Your task to perform on an android device: turn pop-ups on in chrome Image 0: 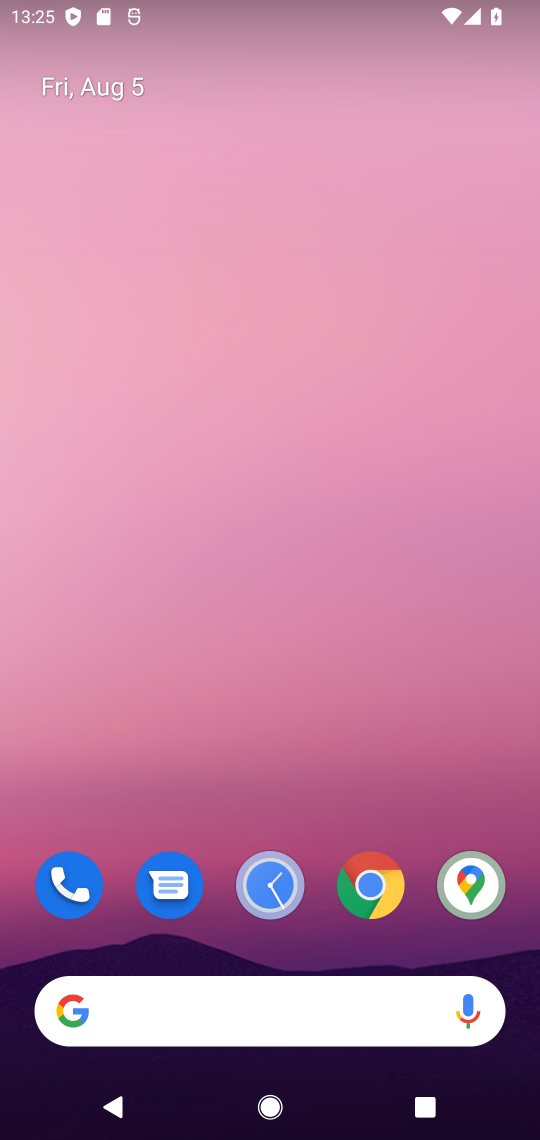
Step 0: click (378, 897)
Your task to perform on an android device: turn pop-ups on in chrome Image 1: 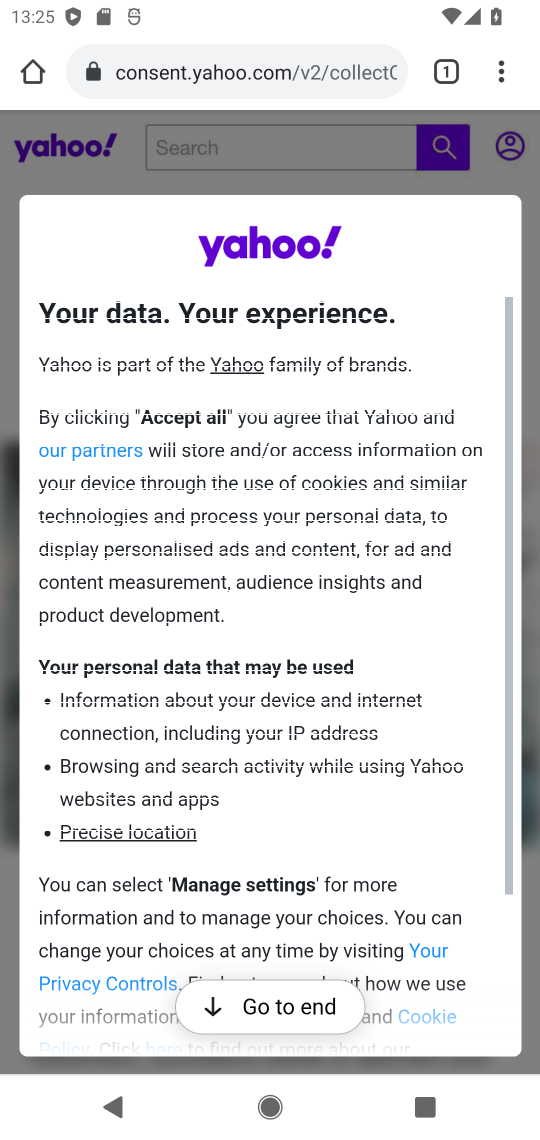
Step 1: click (501, 76)
Your task to perform on an android device: turn pop-ups on in chrome Image 2: 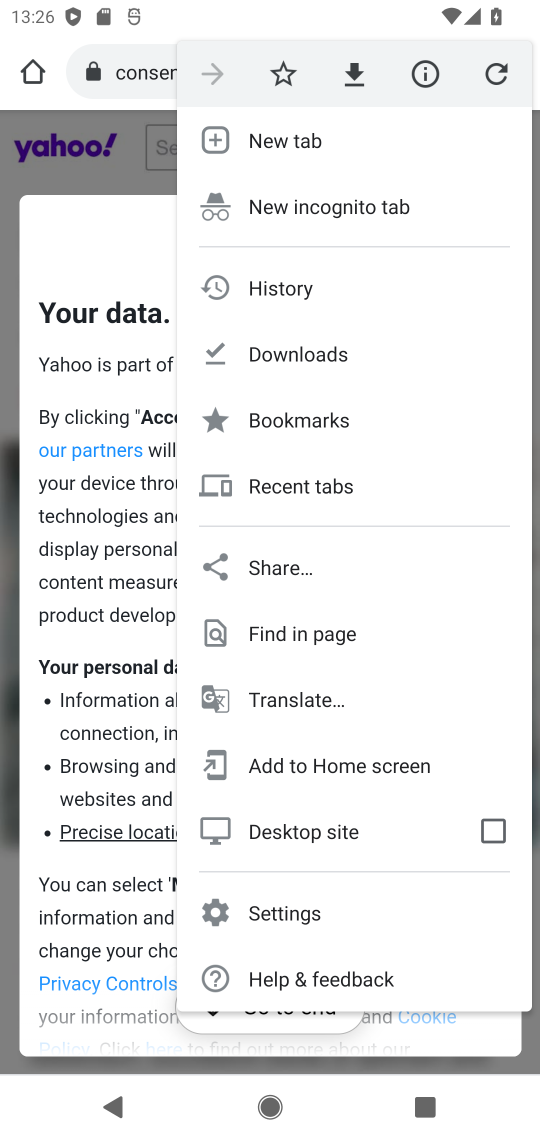
Step 2: click (274, 911)
Your task to perform on an android device: turn pop-ups on in chrome Image 3: 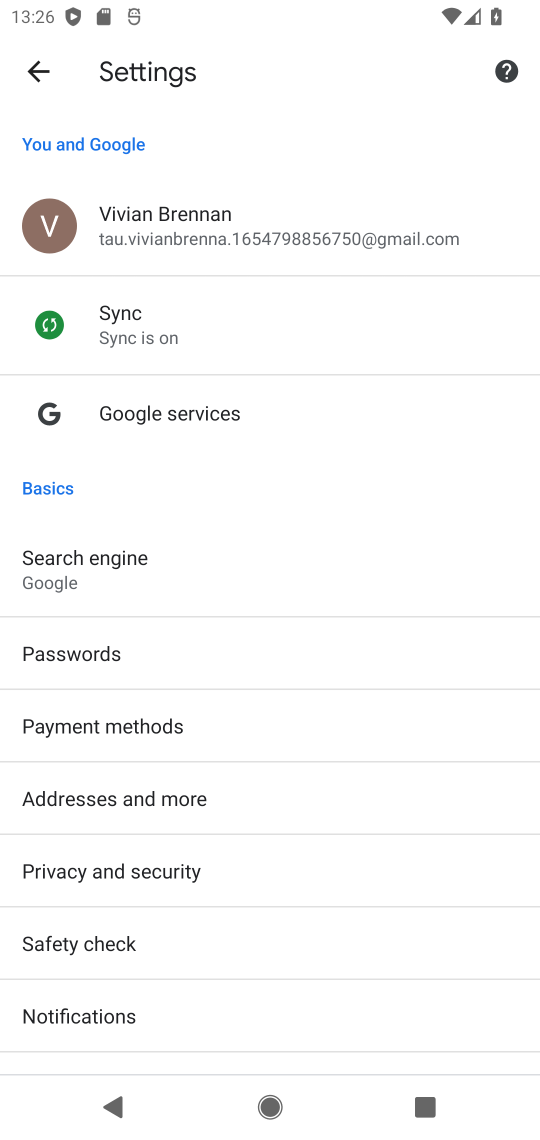
Step 3: drag from (164, 900) to (174, 453)
Your task to perform on an android device: turn pop-ups on in chrome Image 4: 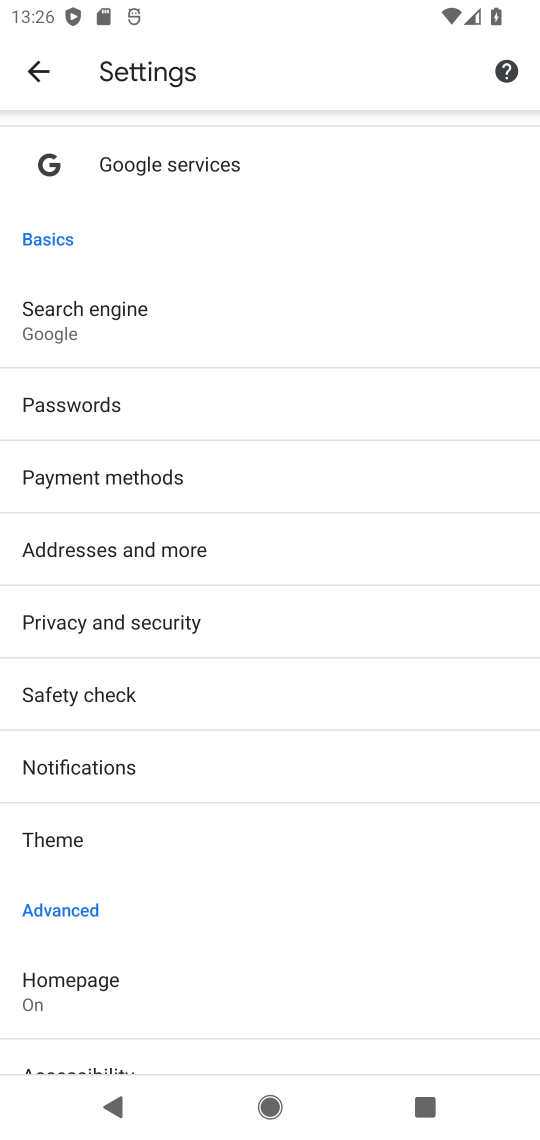
Step 4: press home button
Your task to perform on an android device: turn pop-ups on in chrome Image 5: 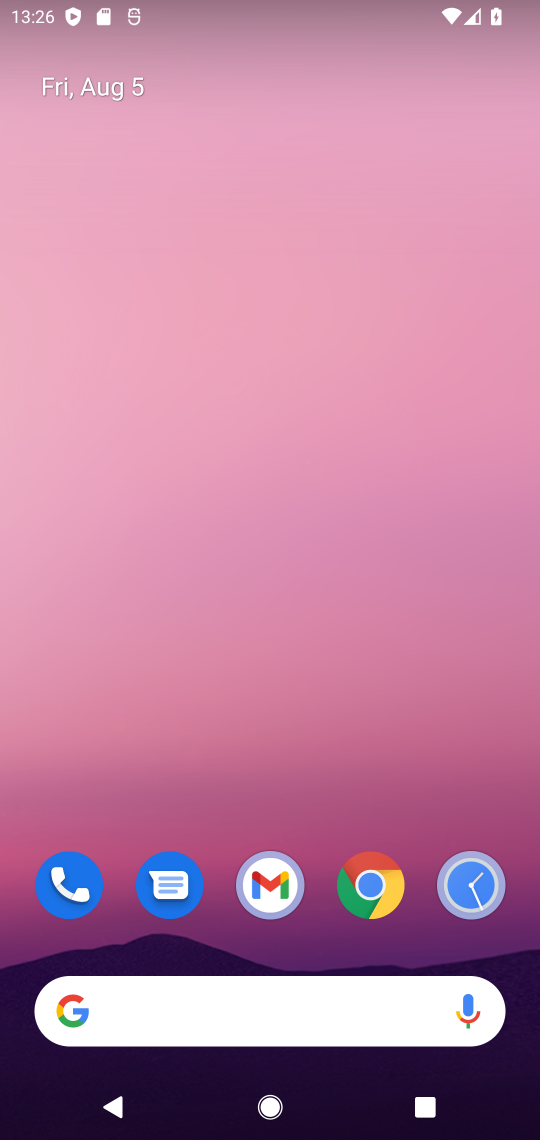
Step 5: click (373, 910)
Your task to perform on an android device: turn pop-ups on in chrome Image 6: 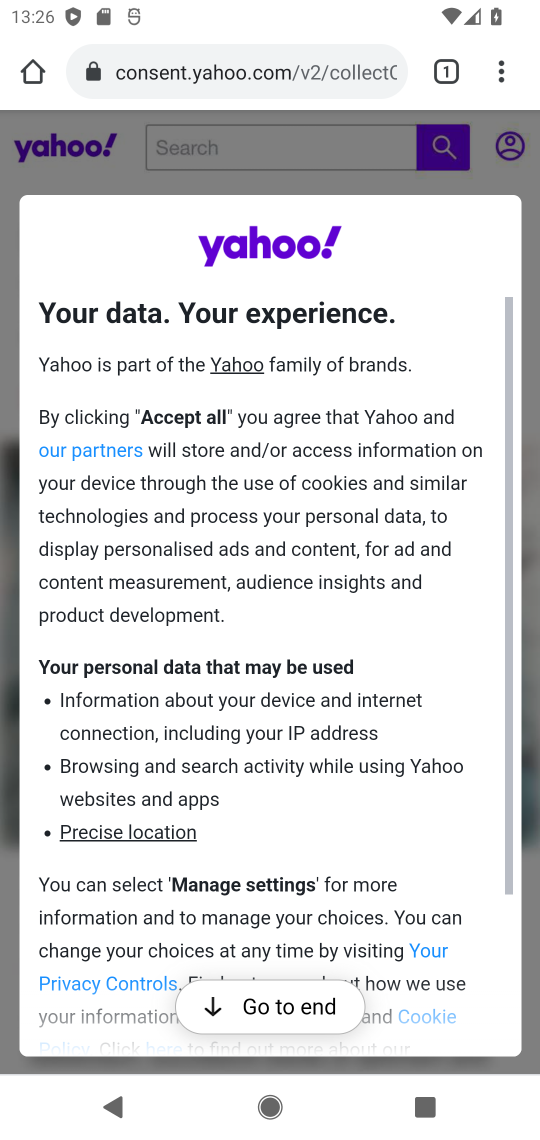
Step 6: click (496, 57)
Your task to perform on an android device: turn pop-ups on in chrome Image 7: 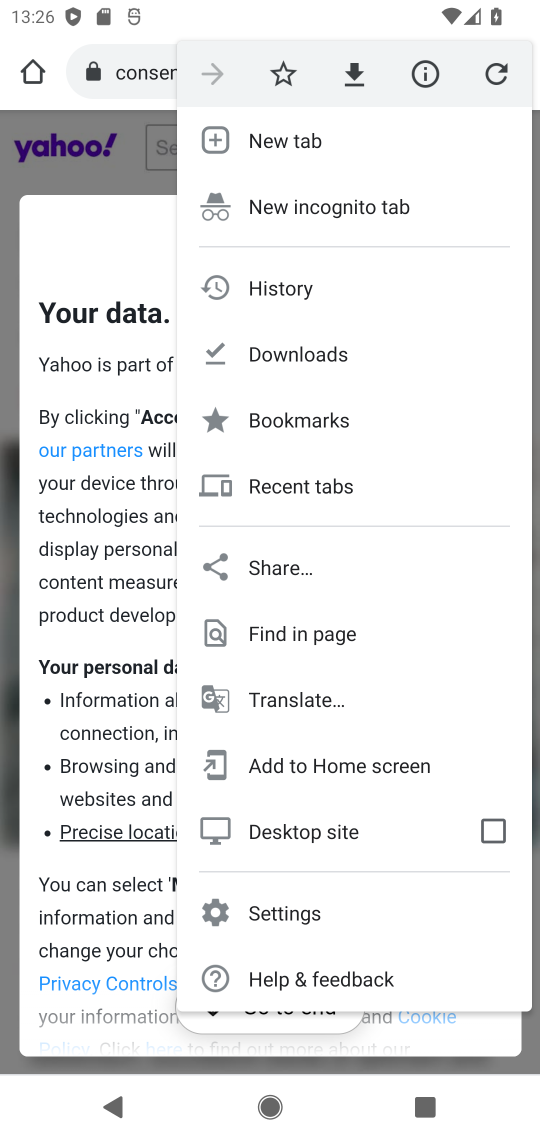
Step 7: click (300, 915)
Your task to perform on an android device: turn pop-ups on in chrome Image 8: 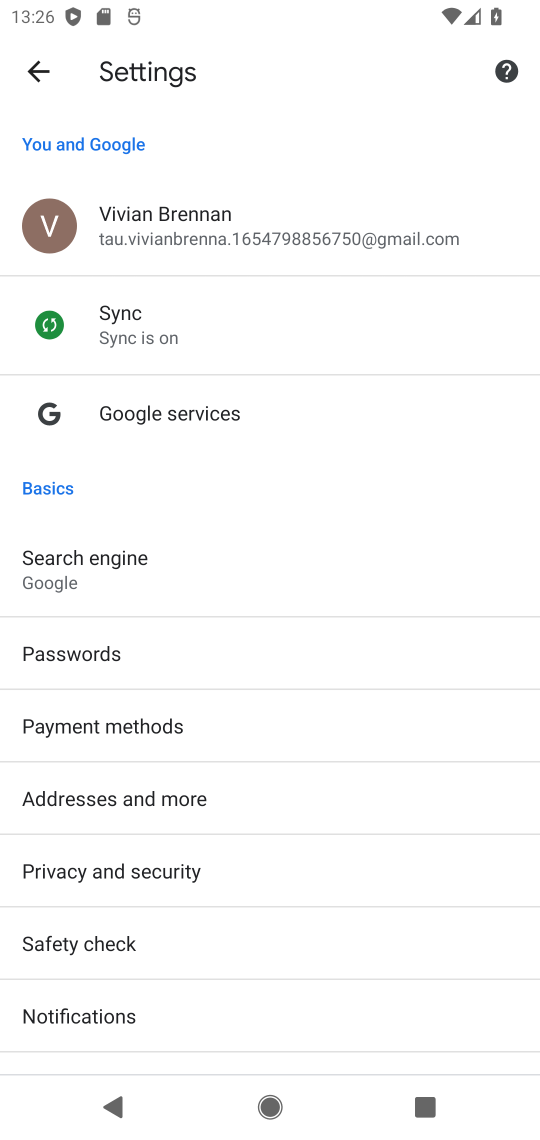
Step 8: drag from (173, 856) to (173, 328)
Your task to perform on an android device: turn pop-ups on in chrome Image 9: 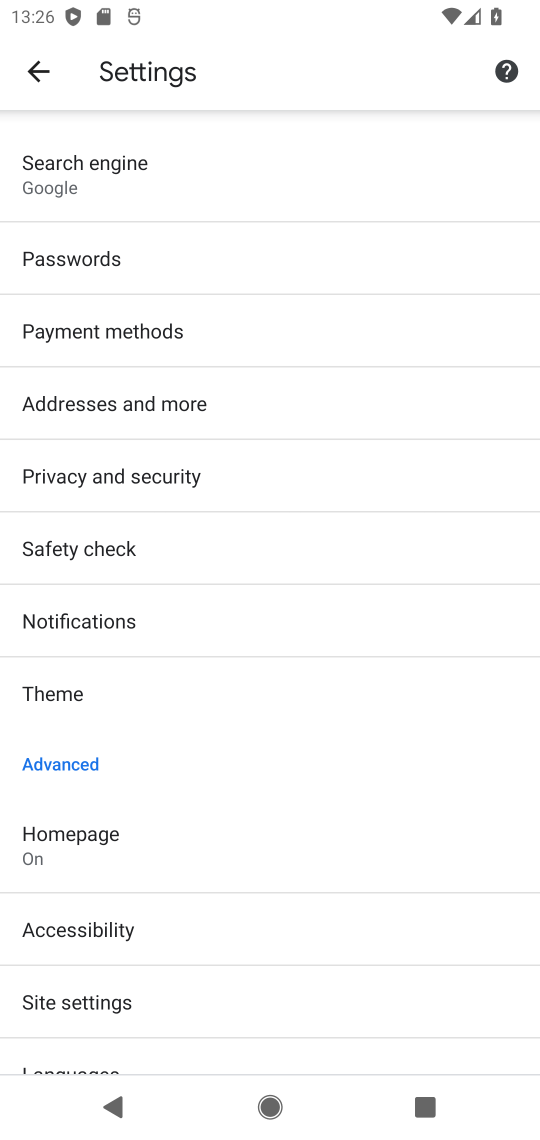
Step 9: click (109, 1002)
Your task to perform on an android device: turn pop-ups on in chrome Image 10: 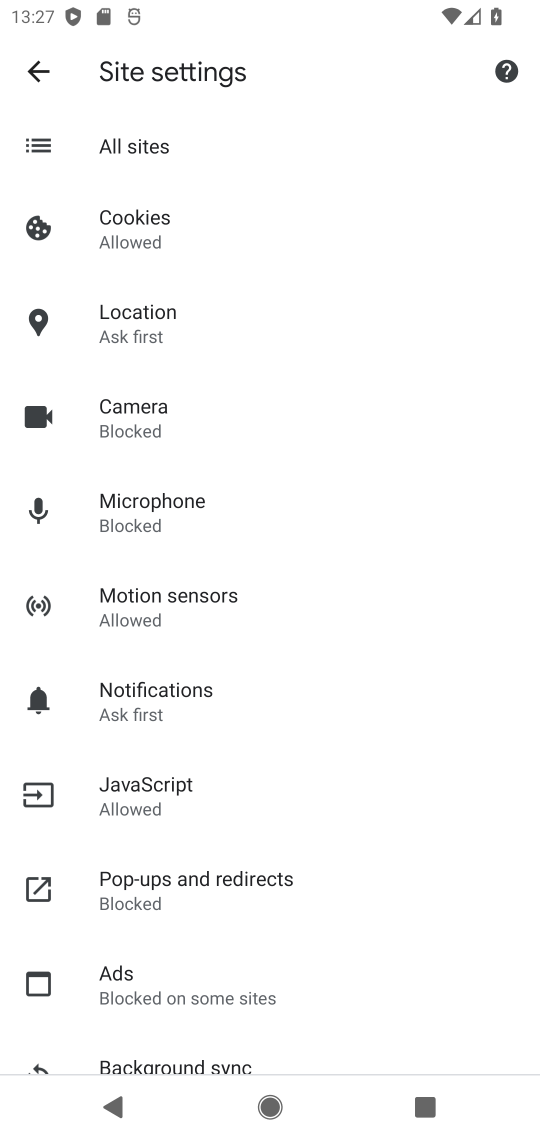
Step 10: click (172, 893)
Your task to perform on an android device: turn pop-ups on in chrome Image 11: 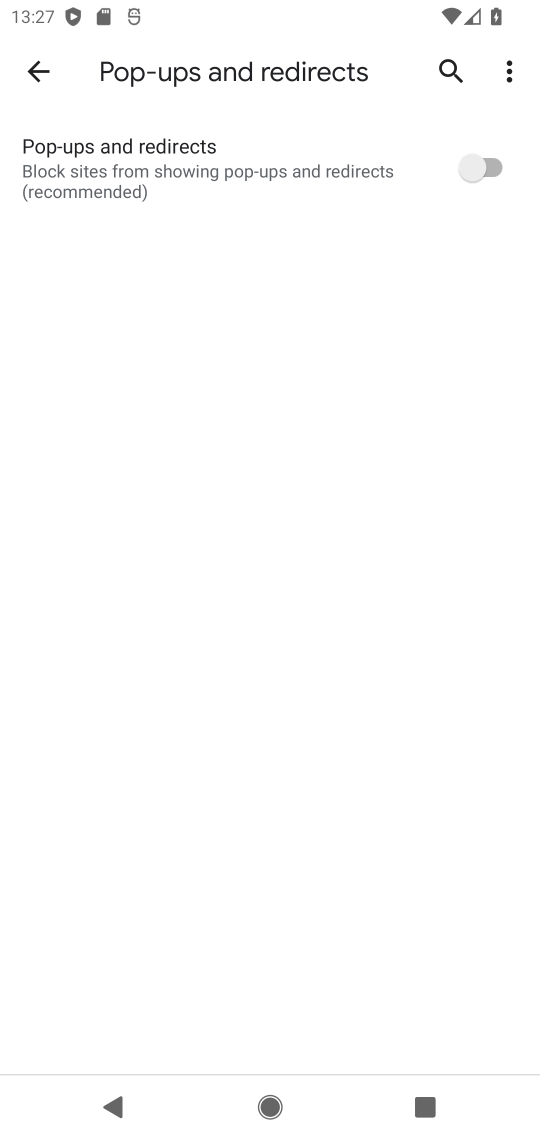
Step 11: click (502, 179)
Your task to perform on an android device: turn pop-ups on in chrome Image 12: 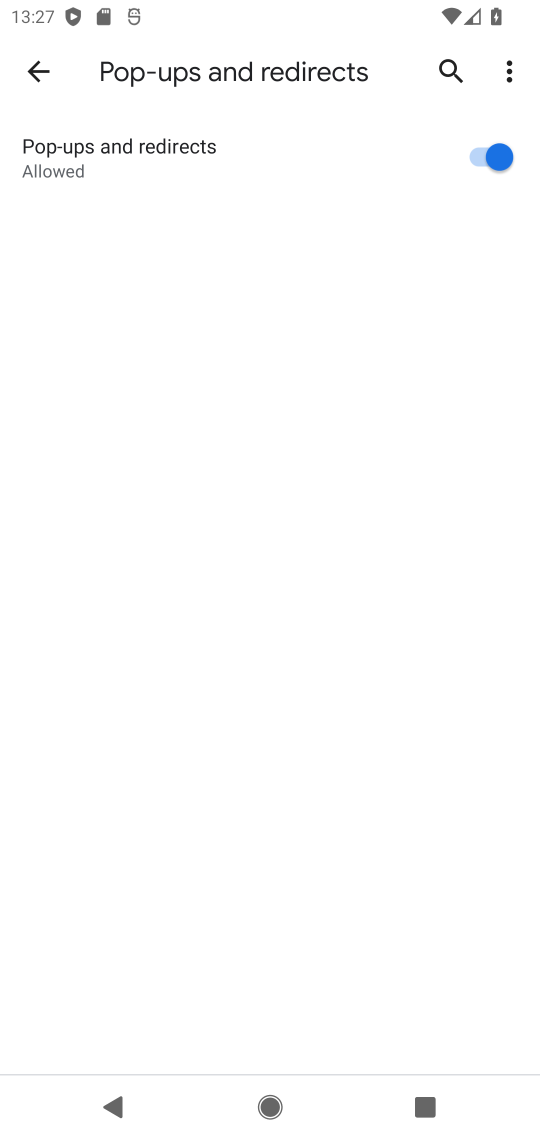
Step 12: task complete